Your task to perform on an android device: uninstall "Yahoo Mail" Image 0: 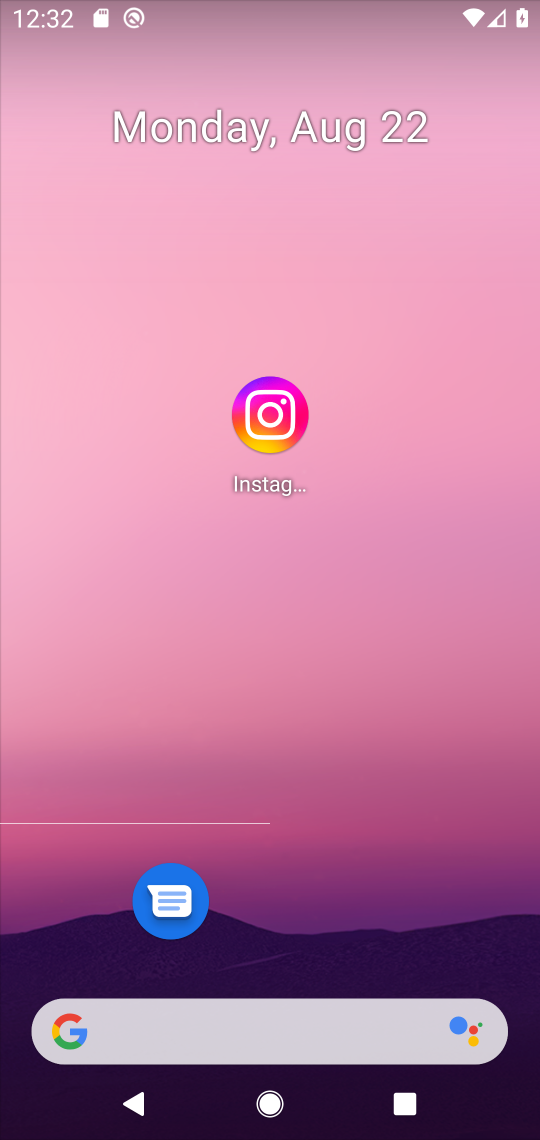
Step 0: drag from (404, 942) to (455, 3)
Your task to perform on an android device: uninstall "Yahoo Mail" Image 1: 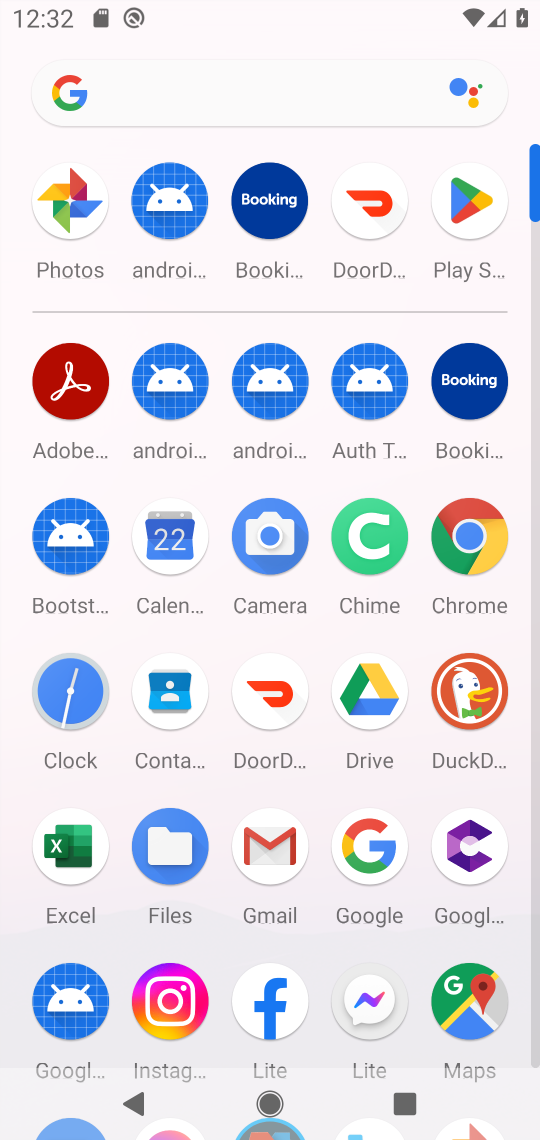
Step 1: click (442, 223)
Your task to perform on an android device: uninstall "Yahoo Mail" Image 2: 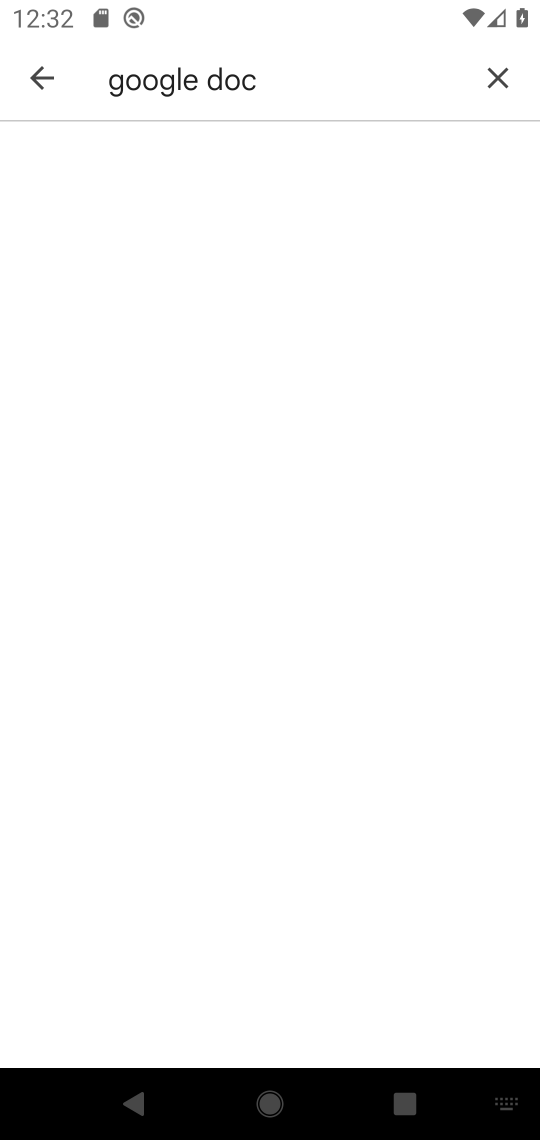
Step 2: click (499, 66)
Your task to perform on an android device: uninstall "Yahoo Mail" Image 3: 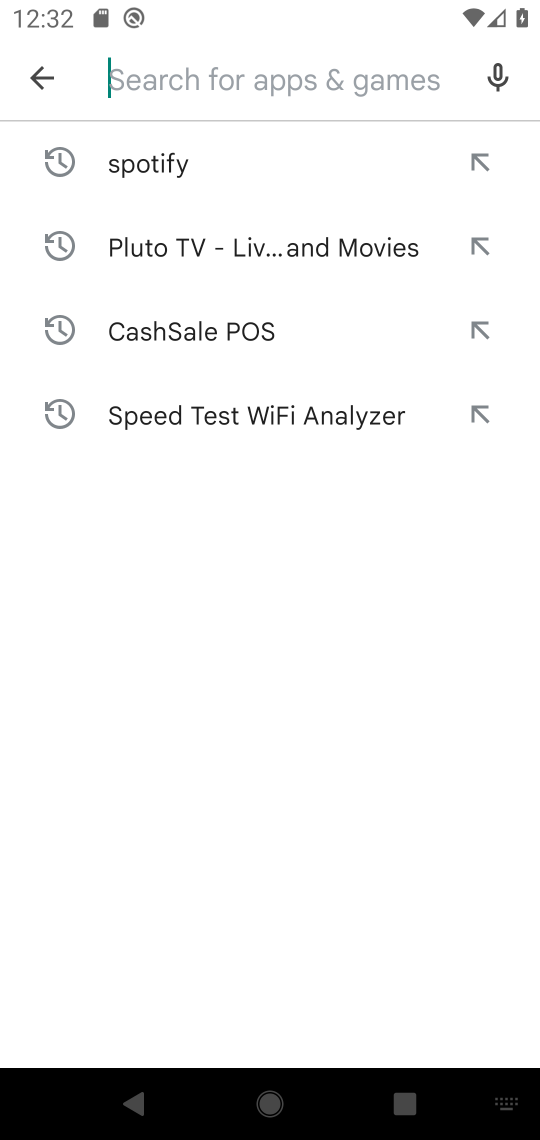
Step 3: type "yahoo"
Your task to perform on an android device: uninstall "Yahoo Mail" Image 4: 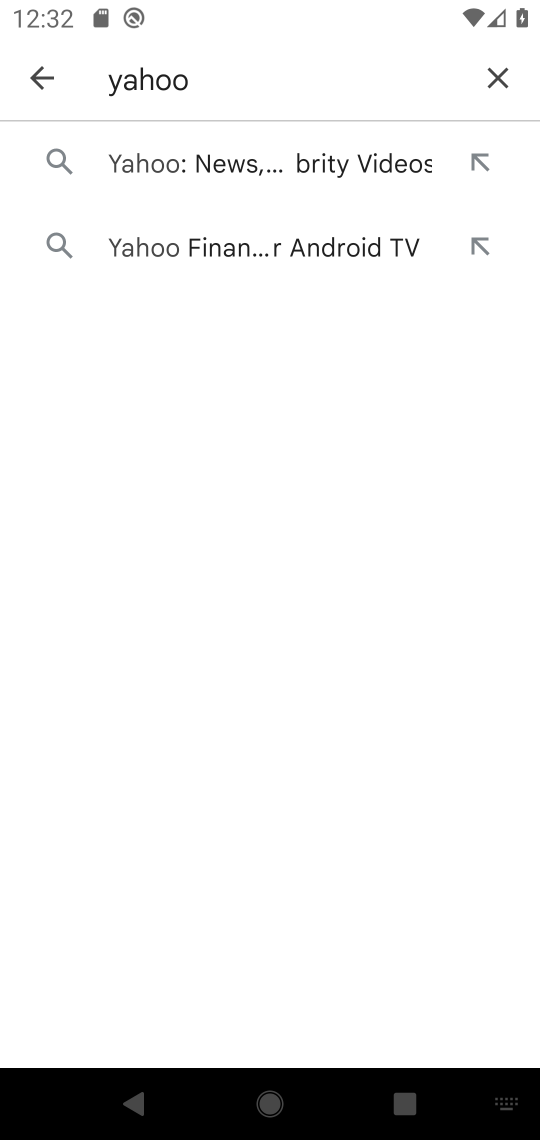
Step 4: click (219, 167)
Your task to perform on an android device: uninstall "Yahoo Mail" Image 5: 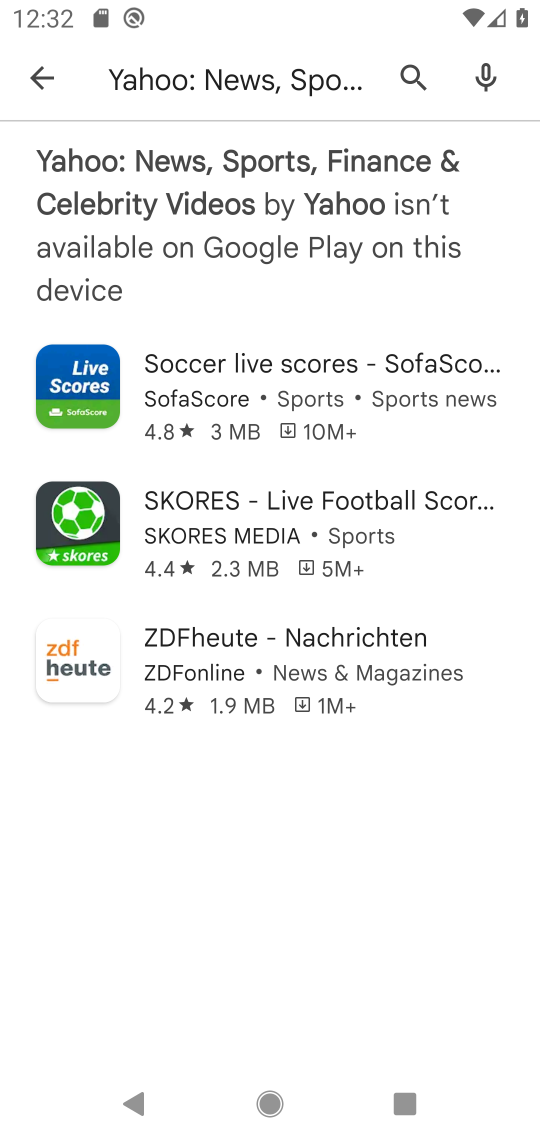
Step 5: task complete